Your task to perform on an android device: toggle pop-ups in chrome Image 0: 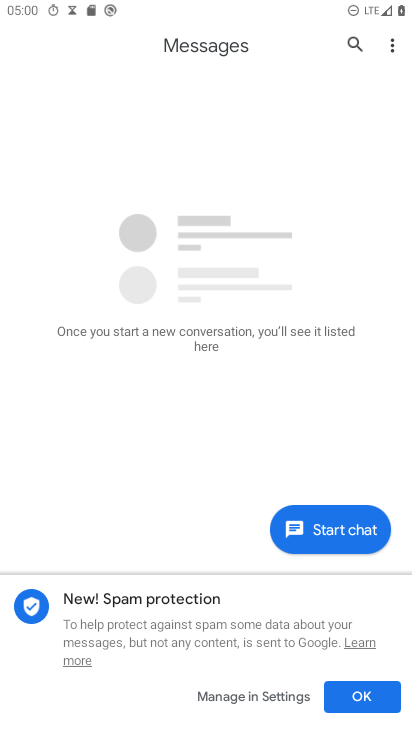
Step 0: press home button
Your task to perform on an android device: toggle pop-ups in chrome Image 1: 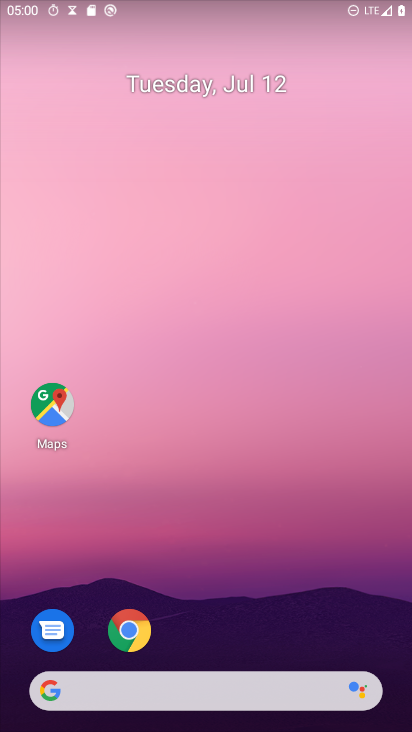
Step 1: drag from (212, 690) to (394, 398)
Your task to perform on an android device: toggle pop-ups in chrome Image 2: 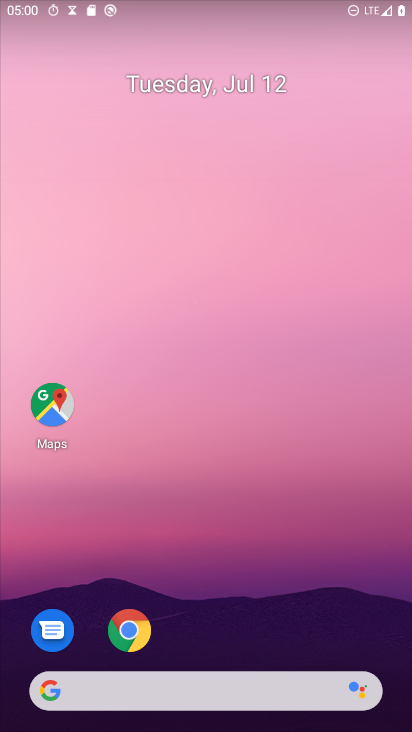
Step 2: click (132, 342)
Your task to perform on an android device: toggle pop-ups in chrome Image 3: 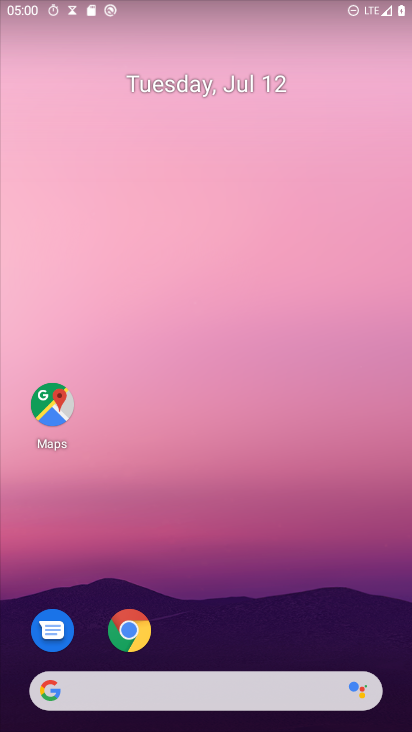
Step 3: drag from (221, 682) to (274, 12)
Your task to perform on an android device: toggle pop-ups in chrome Image 4: 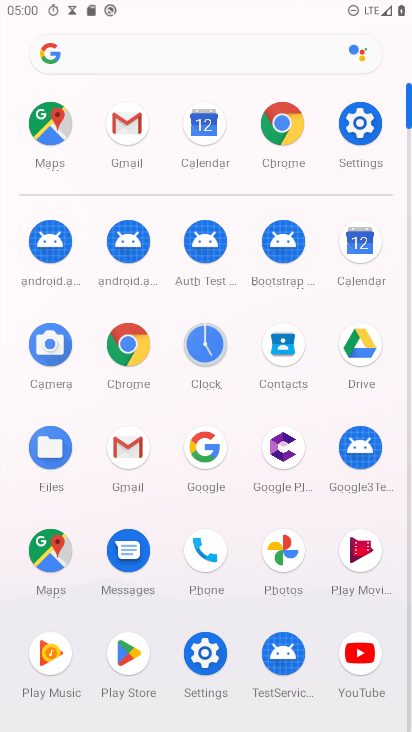
Step 4: click (131, 351)
Your task to perform on an android device: toggle pop-ups in chrome Image 5: 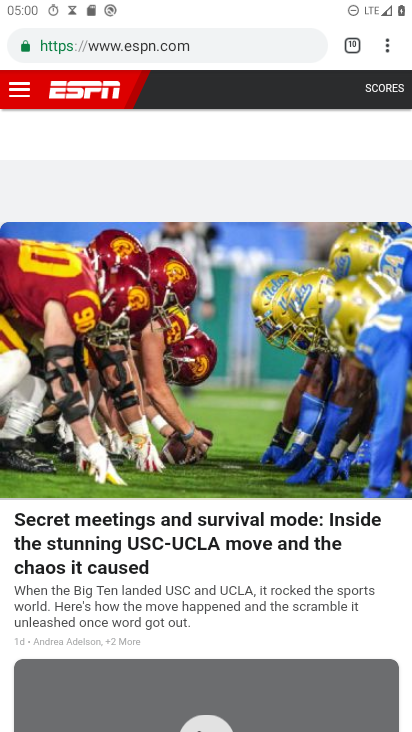
Step 5: drag from (383, 44) to (243, 550)
Your task to perform on an android device: toggle pop-ups in chrome Image 6: 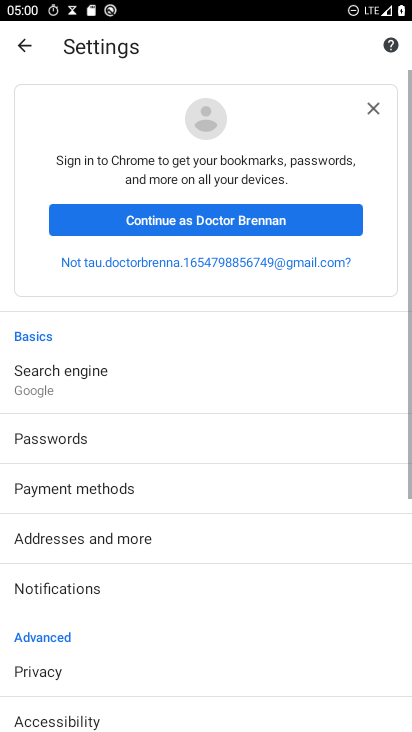
Step 6: drag from (193, 583) to (209, 80)
Your task to perform on an android device: toggle pop-ups in chrome Image 7: 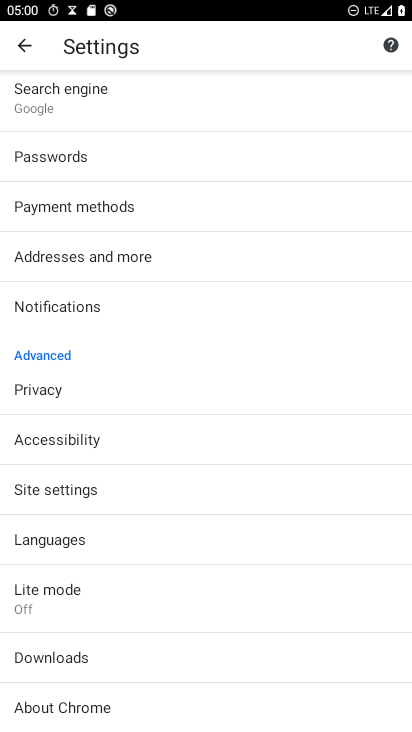
Step 7: click (92, 485)
Your task to perform on an android device: toggle pop-ups in chrome Image 8: 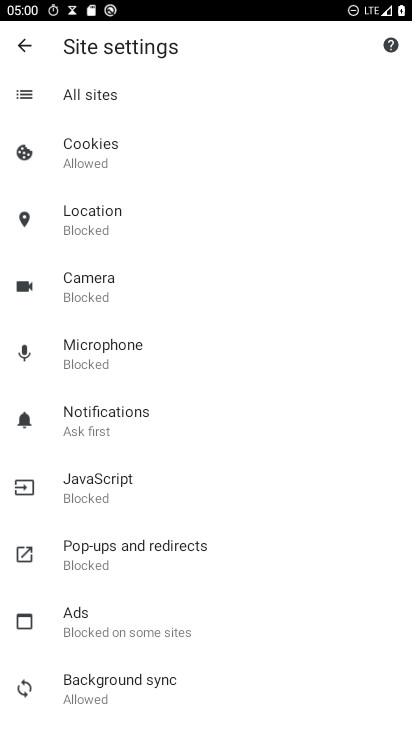
Step 8: click (107, 549)
Your task to perform on an android device: toggle pop-ups in chrome Image 9: 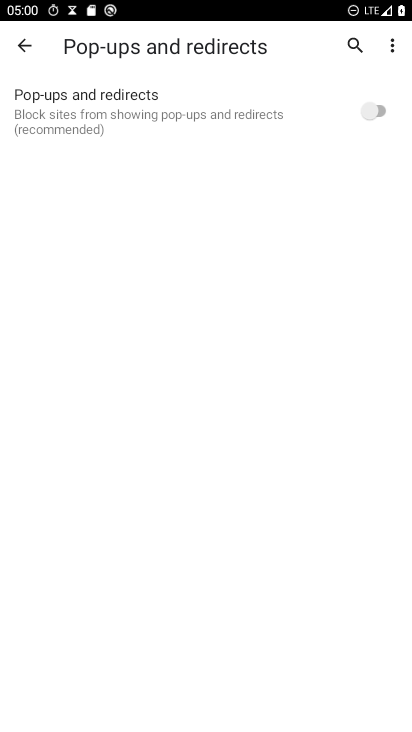
Step 9: click (378, 110)
Your task to perform on an android device: toggle pop-ups in chrome Image 10: 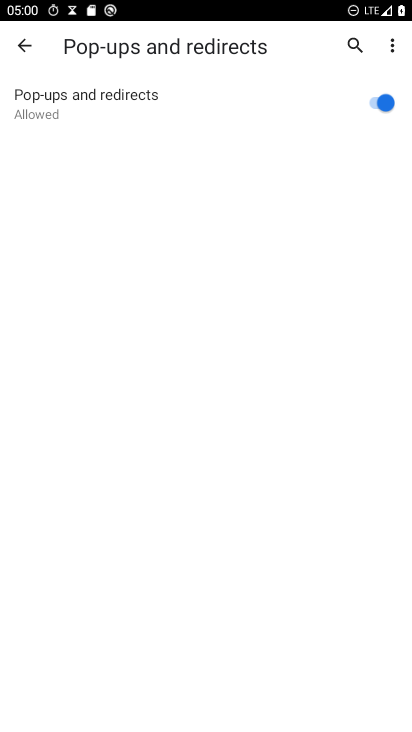
Step 10: task complete